Your task to perform on an android device: find photos in the google photos app Image 0: 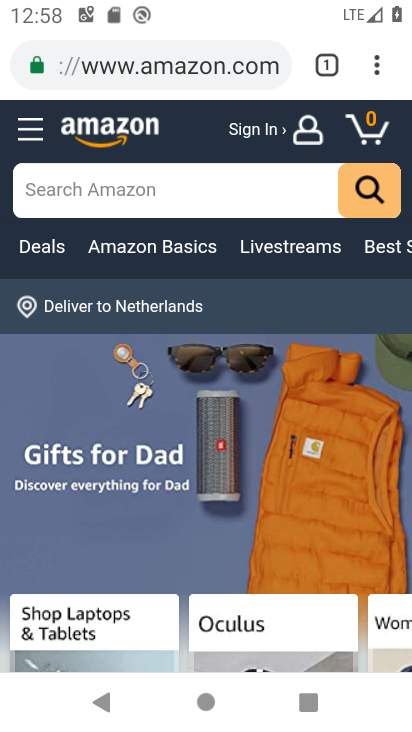
Step 0: press home button
Your task to perform on an android device: find photos in the google photos app Image 1: 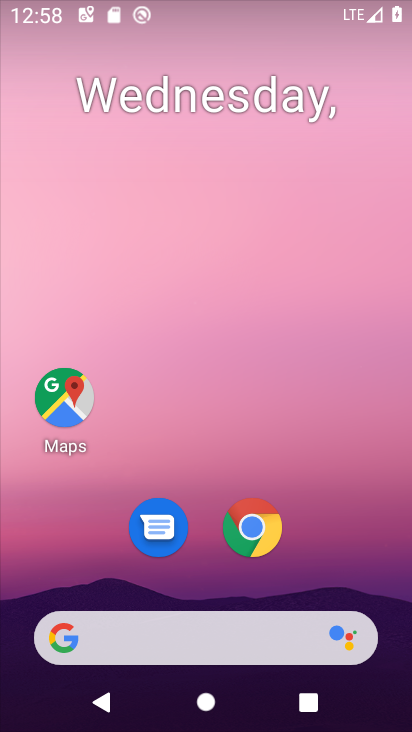
Step 1: drag from (243, 668) to (236, 27)
Your task to perform on an android device: find photos in the google photos app Image 2: 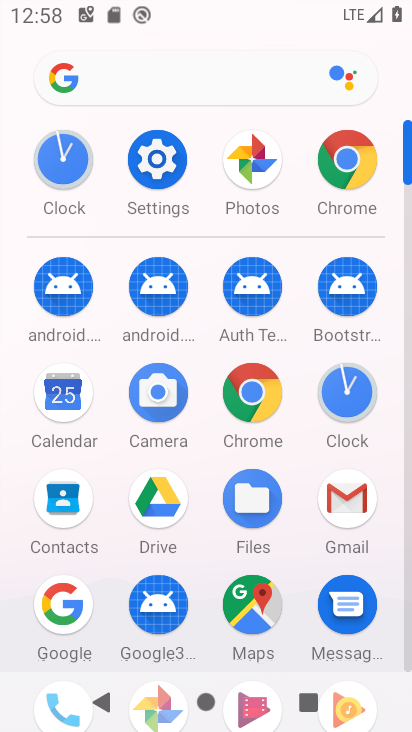
Step 2: drag from (310, 622) to (292, 244)
Your task to perform on an android device: find photos in the google photos app Image 3: 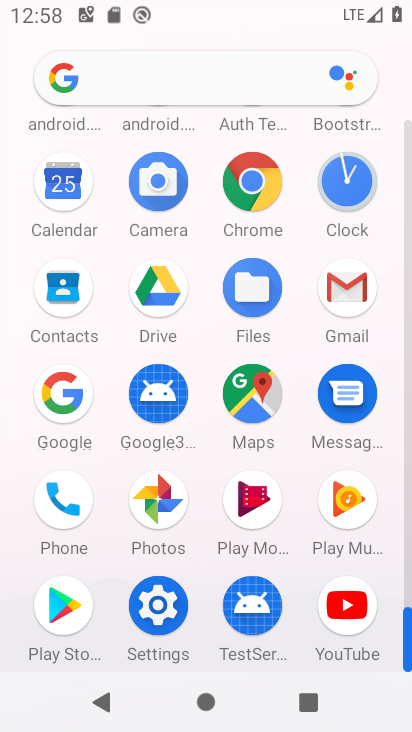
Step 3: click (152, 495)
Your task to perform on an android device: find photos in the google photos app Image 4: 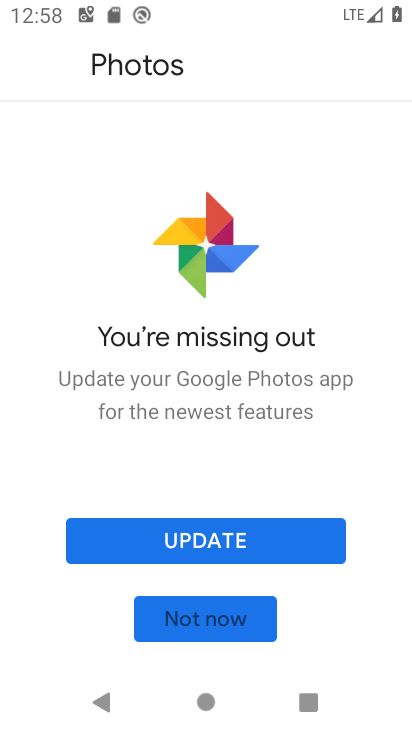
Step 4: click (215, 537)
Your task to perform on an android device: find photos in the google photos app Image 5: 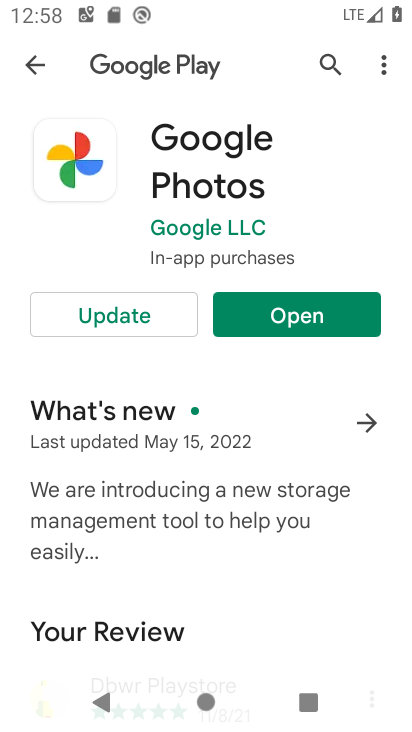
Step 5: click (123, 305)
Your task to perform on an android device: find photos in the google photos app Image 6: 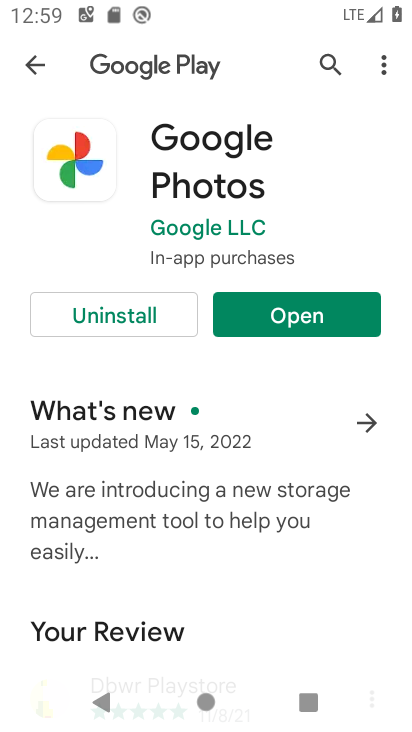
Step 6: click (323, 322)
Your task to perform on an android device: find photos in the google photos app Image 7: 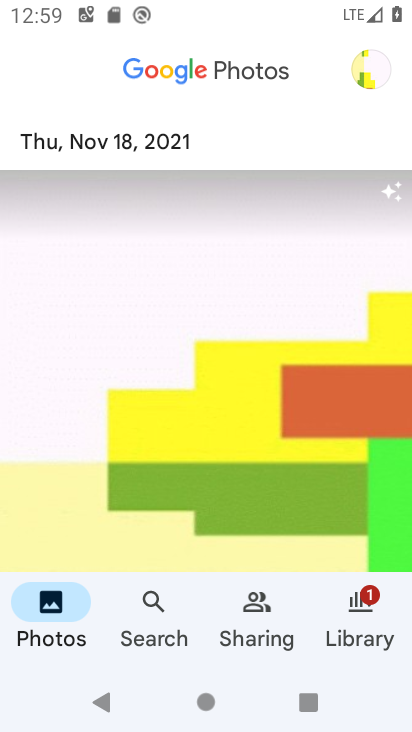
Step 7: task complete